Your task to perform on an android device: open app "AliExpress" Image 0: 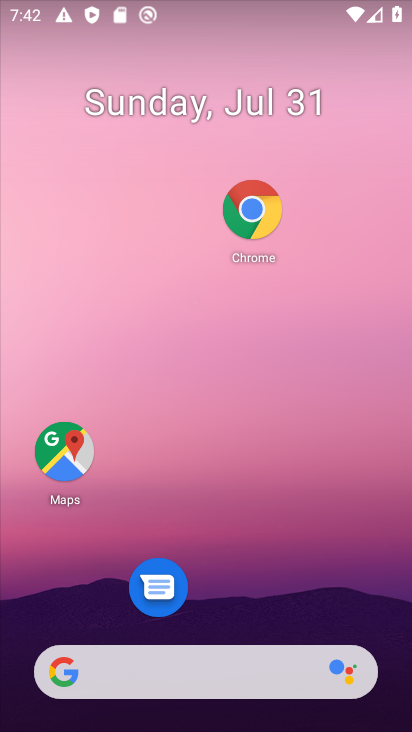
Step 0: drag from (244, 619) to (173, 4)
Your task to perform on an android device: open app "AliExpress" Image 1: 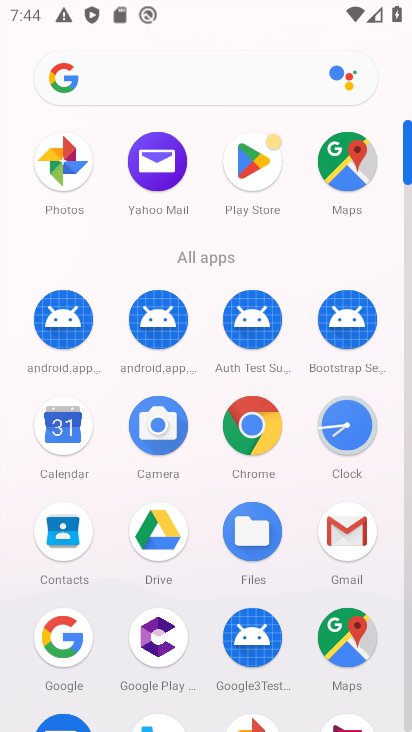
Step 1: click (236, 165)
Your task to perform on an android device: open app "AliExpress" Image 2: 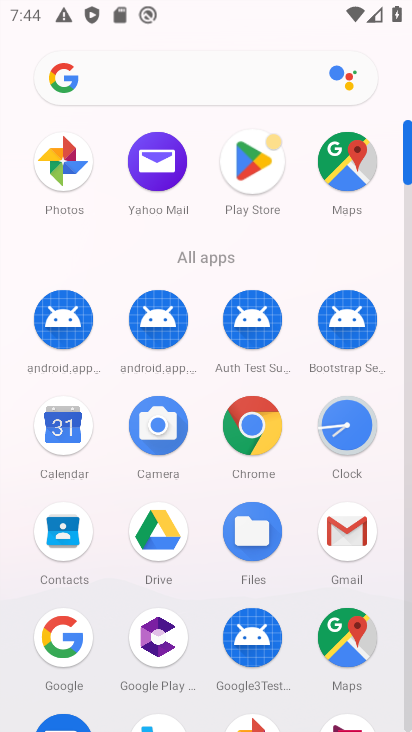
Step 2: click (239, 167)
Your task to perform on an android device: open app "AliExpress" Image 3: 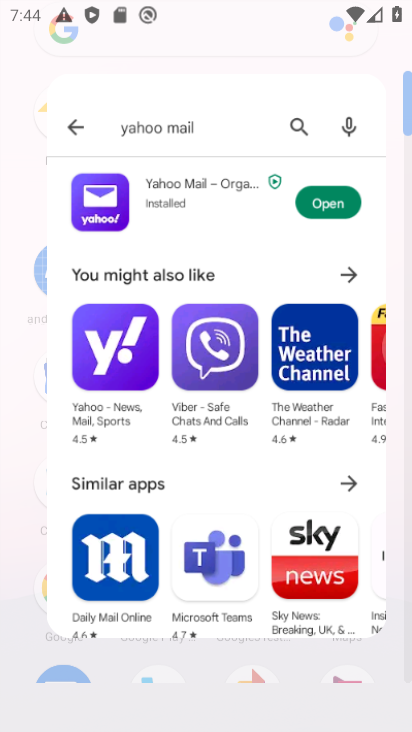
Step 3: click (244, 169)
Your task to perform on an android device: open app "AliExpress" Image 4: 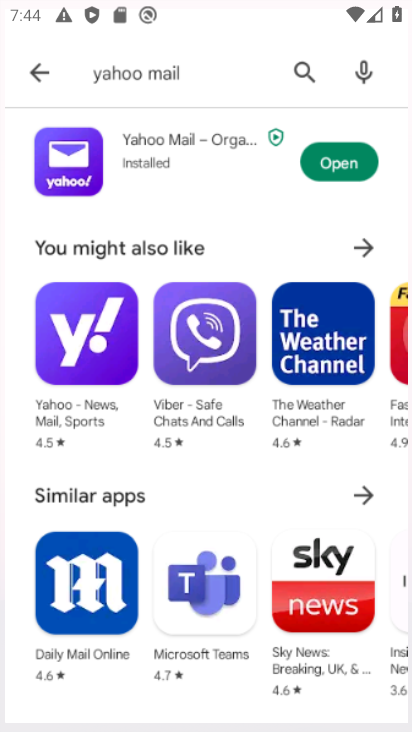
Step 4: click (242, 169)
Your task to perform on an android device: open app "AliExpress" Image 5: 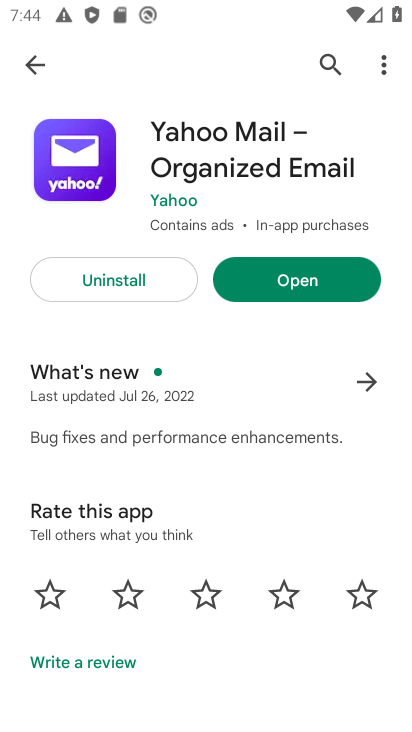
Step 5: click (36, 65)
Your task to perform on an android device: open app "AliExpress" Image 6: 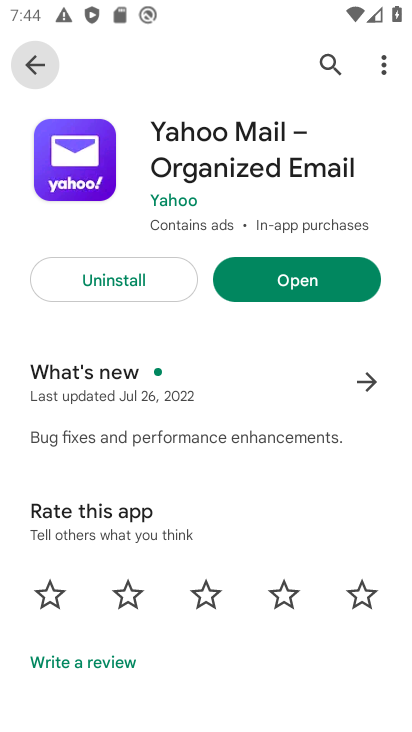
Step 6: click (36, 65)
Your task to perform on an android device: open app "AliExpress" Image 7: 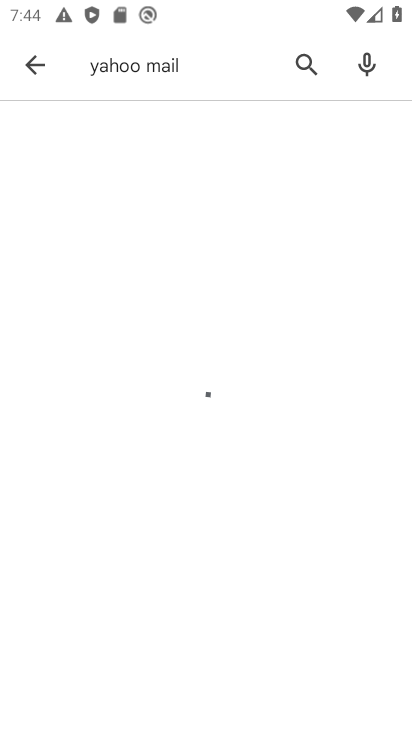
Step 7: click (38, 67)
Your task to perform on an android device: open app "AliExpress" Image 8: 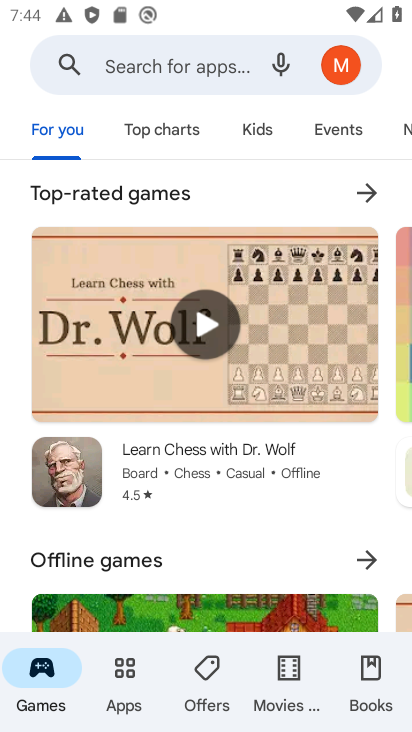
Step 8: click (122, 64)
Your task to perform on an android device: open app "AliExpress" Image 9: 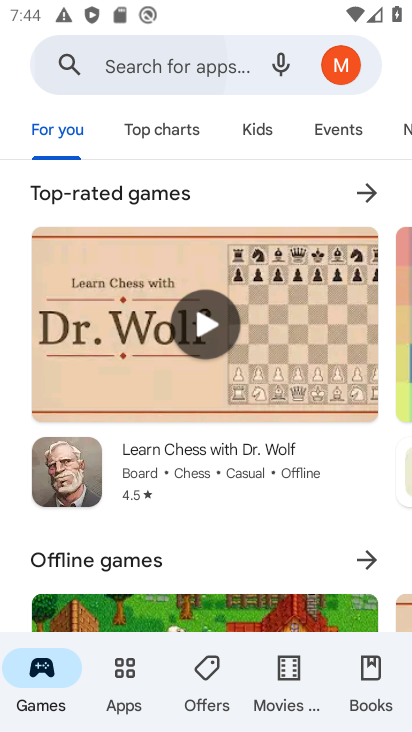
Step 9: click (123, 64)
Your task to perform on an android device: open app "AliExpress" Image 10: 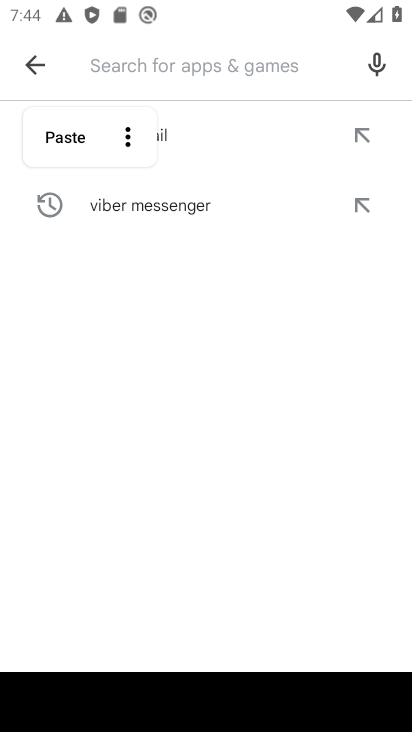
Step 10: type "AliExpress"
Your task to perform on an android device: open app "AliExpress" Image 11: 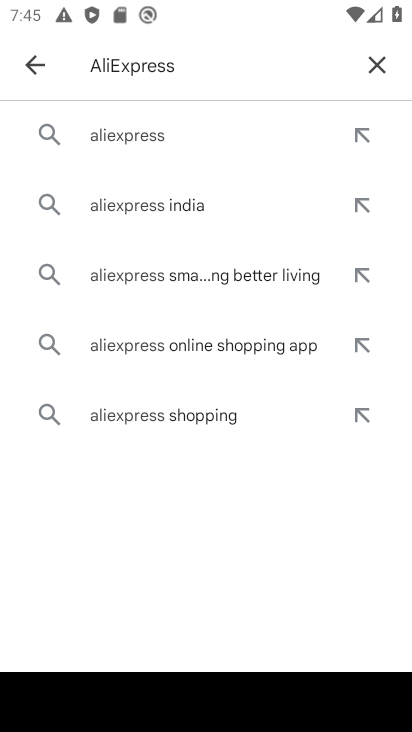
Step 11: click (359, 129)
Your task to perform on an android device: open app "AliExpress" Image 12: 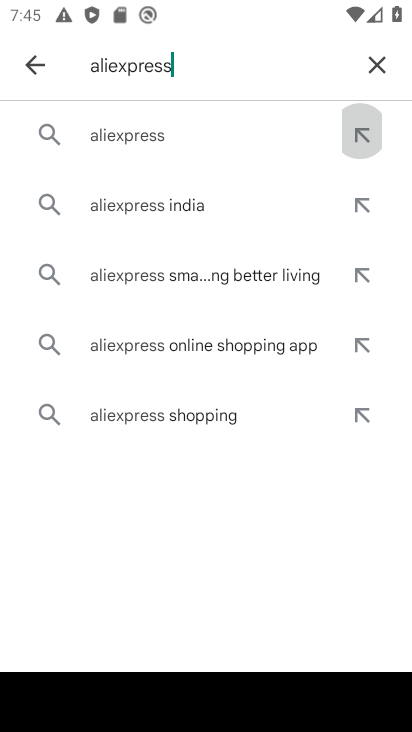
Step 12: click (363, 132)
Your task to perform on an android device: open app "AliExpress" Image 13: 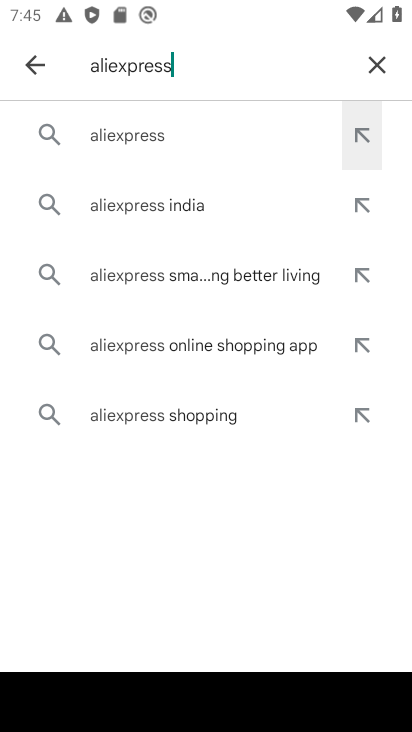
Step 13: click (364, 133)
Your task to perform on an android device: open app "AliExpress" Image 14: 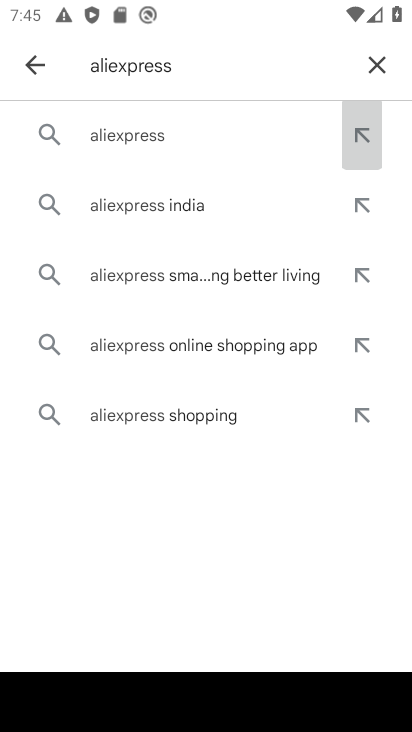
Step 14: click (364, 133)
Your task to perform on an android device: open app "AliExpress" Image 15: 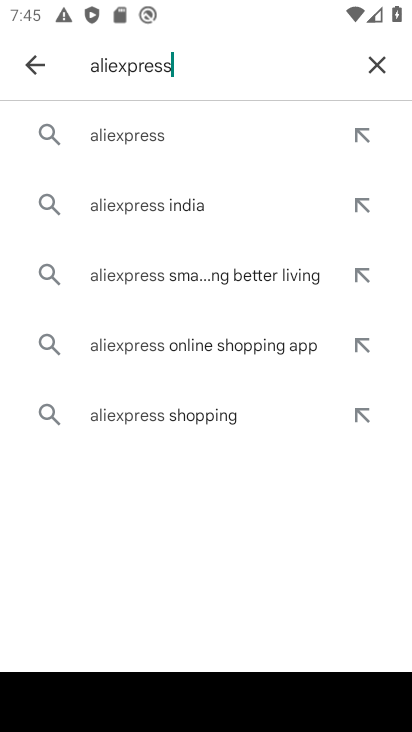
Step 15: click (115, 131)
Your task to perform on an android device: open app "AliExpress" Image 16: 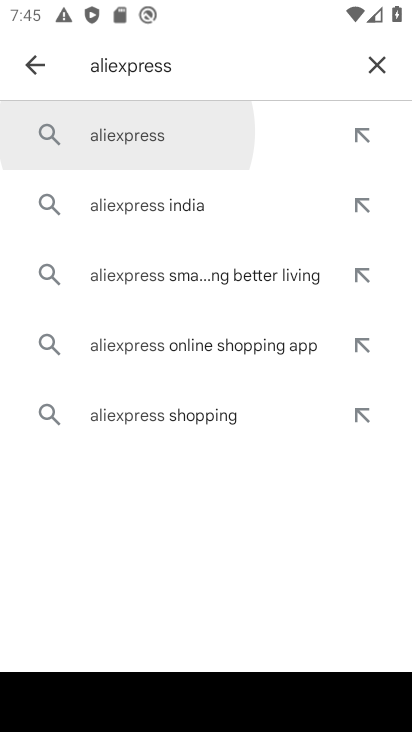
Step 16: click (119, 130)
Your task to perform on an android device: open app "AliExpress" Image 17: 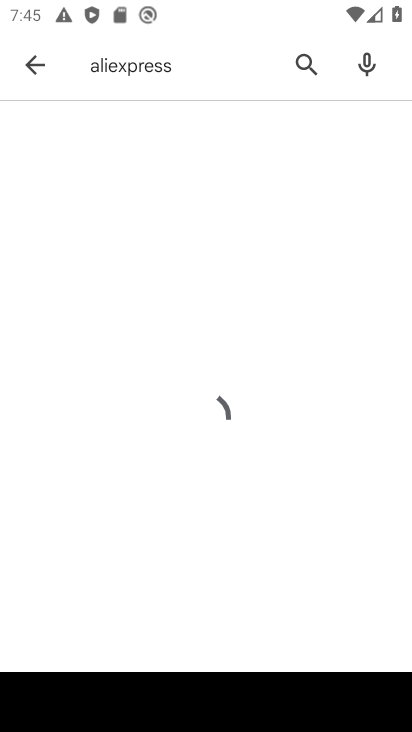
Step 17: click (119, 130)
Your task to perform on an android device: open app "AliExpress" Image 18: 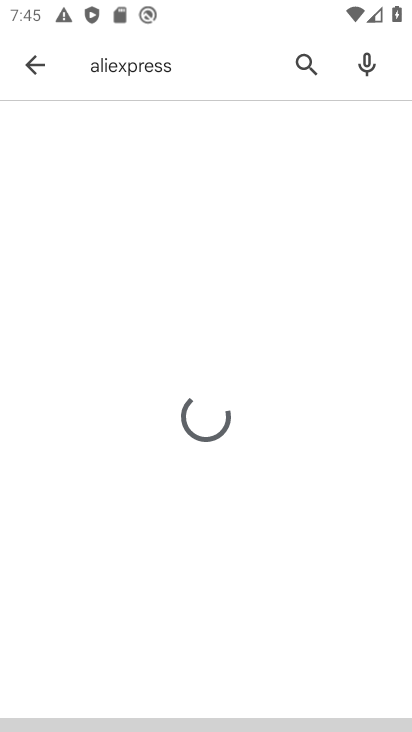
Step 18: click (119, 130)
Your task to perform on an android device: open app "AliExpress" Image 19: 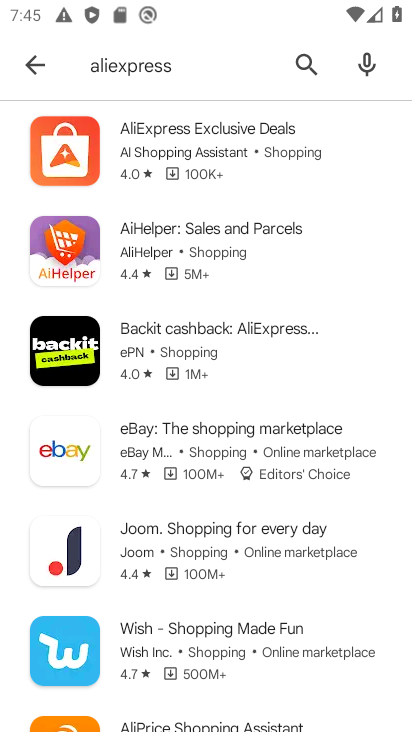
Step 19: task complete